Your task to perform on an android device: create a new album in the google photos Image 0: 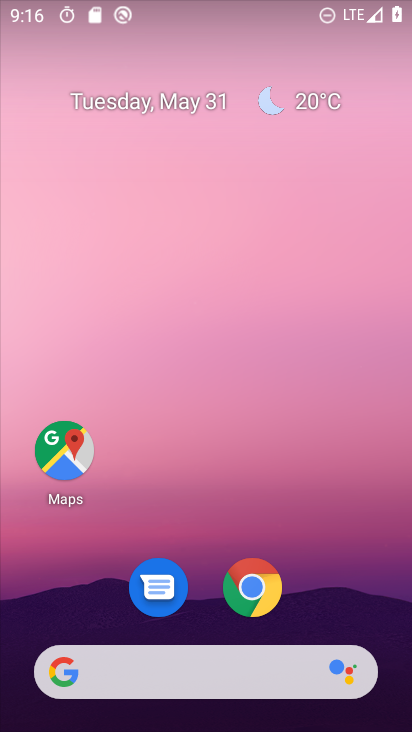
Step 0: drag from (200, 619) to (182, 49)
Your task to perform on an android device: create a new album in the google photos Image 1: 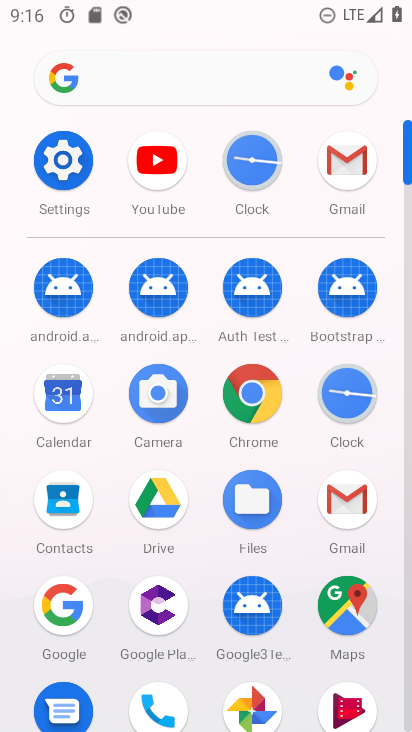
Step 1: click (262, 714)
Your task to perform on an android device: create a new album in the google photos Image 2: 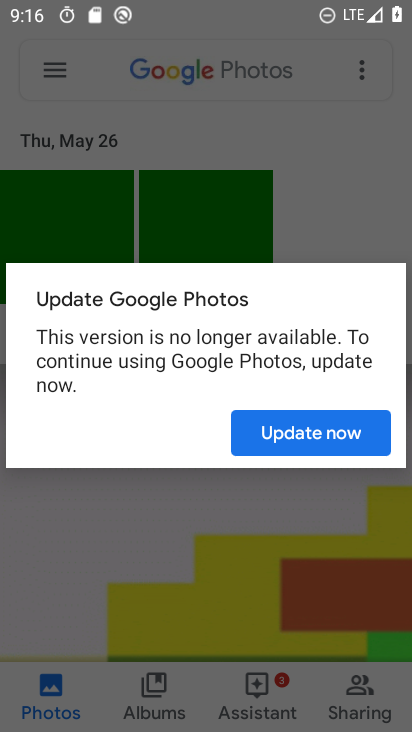
Step 2: click (334, 450)
Your task to perform on an android device: create a new album in the google photos Image 3: 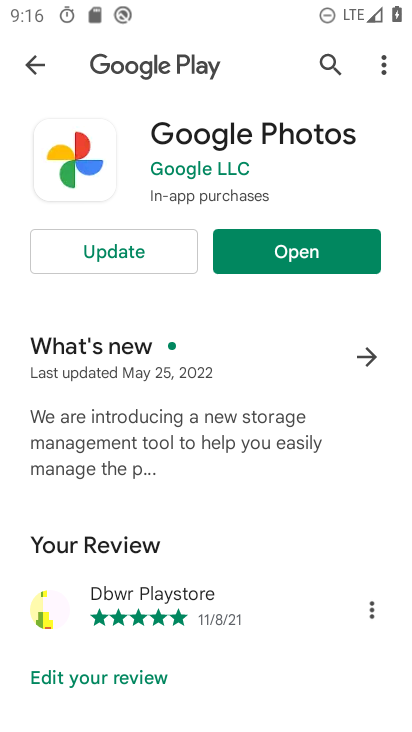
Step 3: click (276, 252)
Your task to perform on an android device: create a new album in the google photos Image 4: 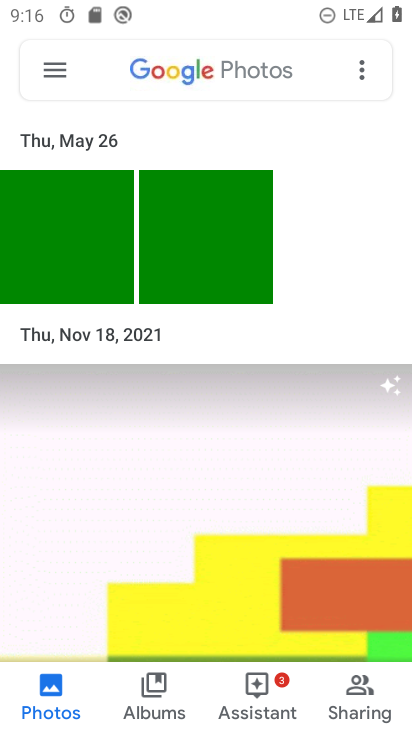
Step 4: click (218, 243)
Your task to perform on an android device: create a new album in the google photos Image 5: 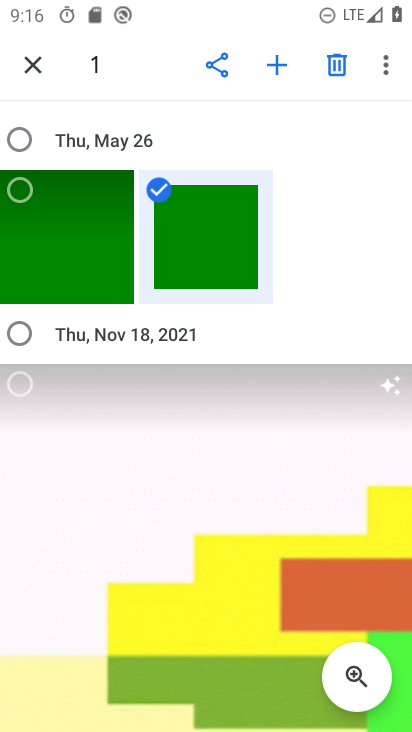
Step 5: click (21, 194)
Your task to perform on an android device: create a new album in the google photos Image 6: 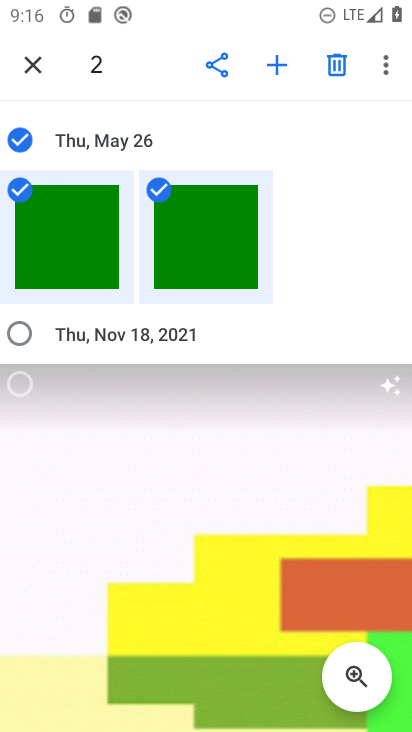
Step 6: click (282, 69)
Your task to perform on an android device: create a new album in the google photos Image 7: 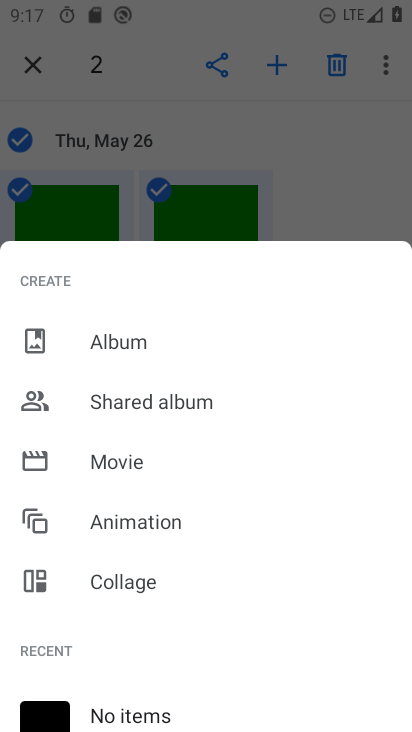
Step 7: click (185, 341)
Your task to perform on an android device: create a new album in the google photos Image 8: 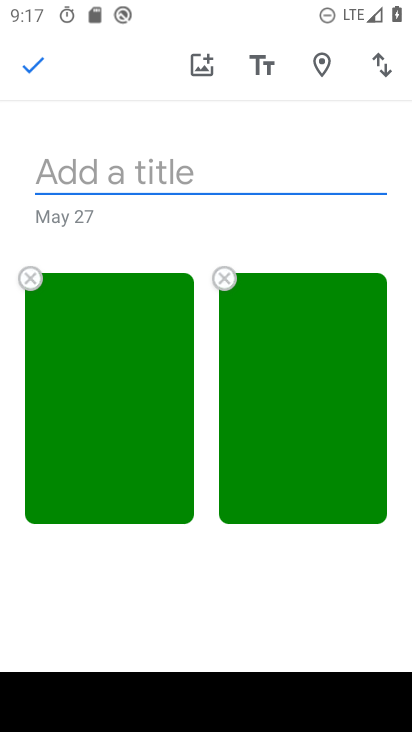
Step 8: type "pokijh"
Your task to perform on an android device: create a new album in the google photos Image 9: 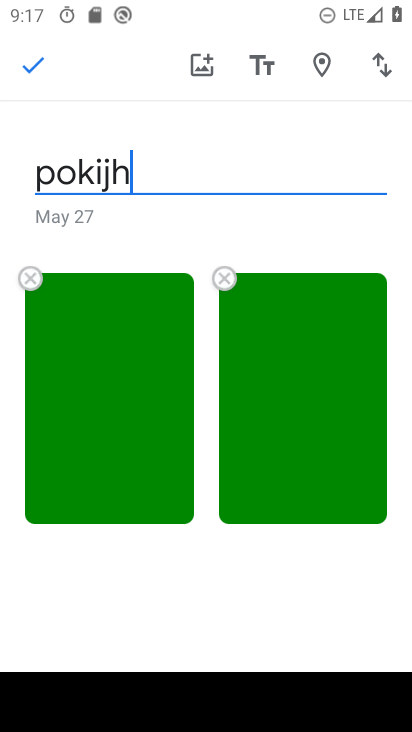
Step 9: type ""
Your task to perform on an android device: create a new album in the google photos Image 10: 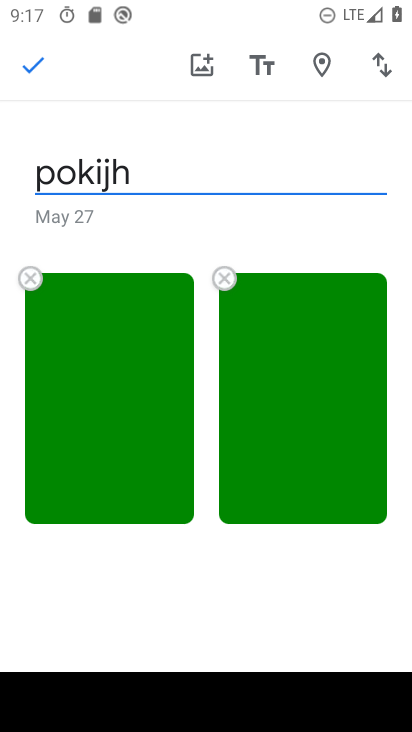
Step 10: click (34, 47)
Your task to perform on an android device: create a new album in the google photos Image 11: 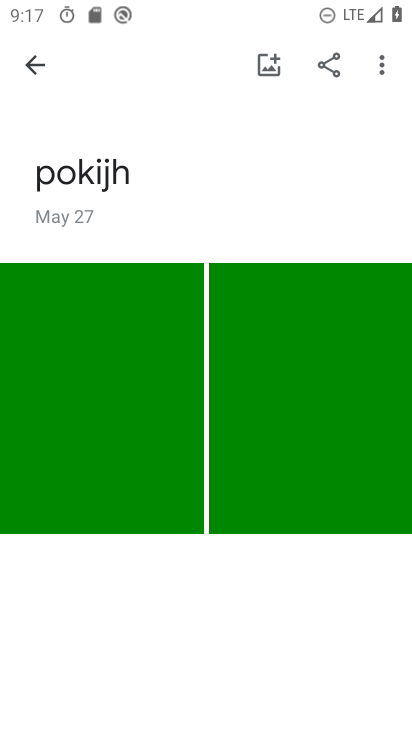
Step 11: task complete